Your task to perform on an android device: When is my next meeting? Image 0: 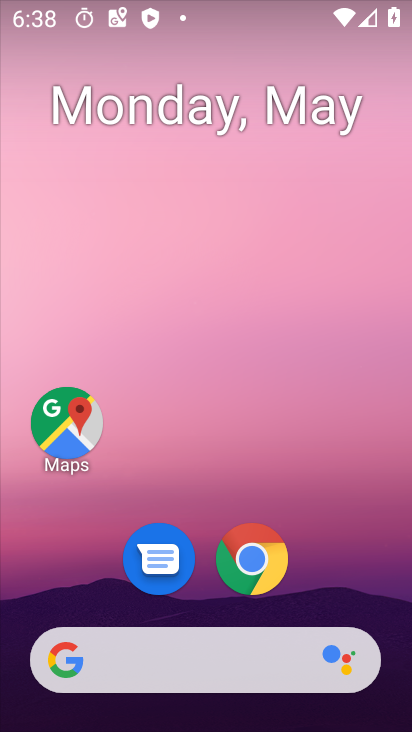
Step 0: drag from (404, 636) to (276, 16)
Your task to perform on an android device: When is my next meeting? Image 1: 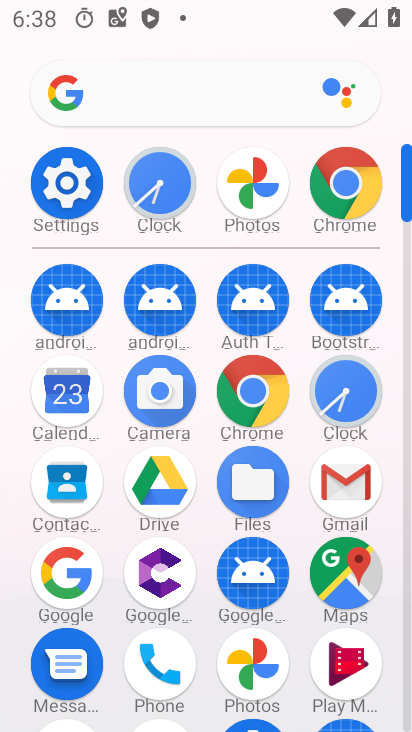
Step 1: click (75, 400)
Your task to perform on an android device: When is my next meeting? Image 2: 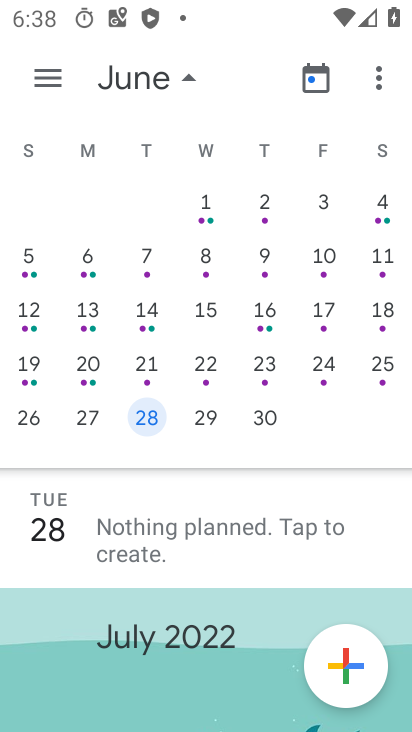
Step 2: task complete